Your task to perform on an android device: open app "Airtel Thanks" (install if not already installed) and go to login screen Image 0: 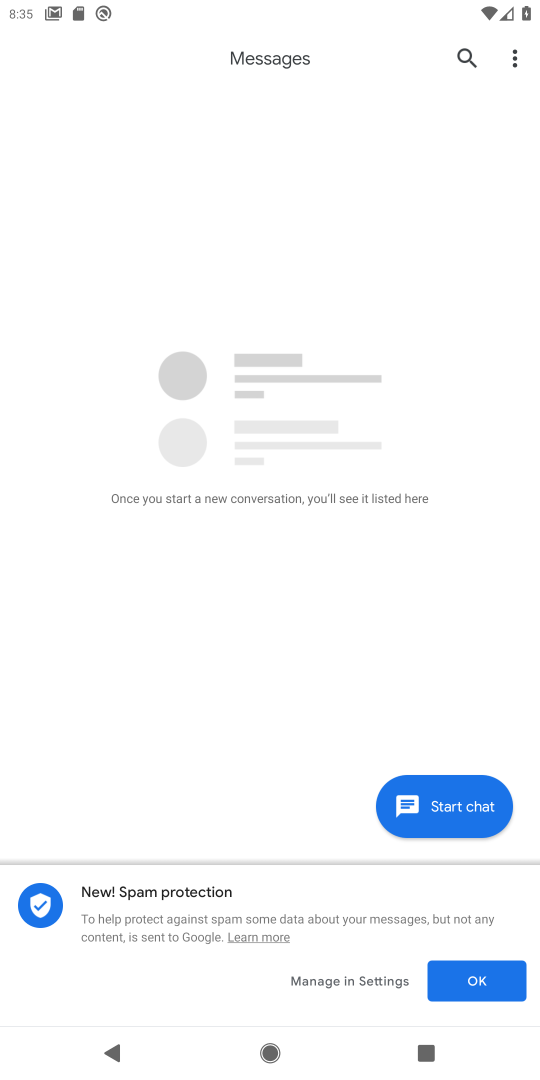
Step 0: press home button
Your task to perform on an android device: open app "Airtel Thanks" (install if not already installed) and go to login screen Image 1: 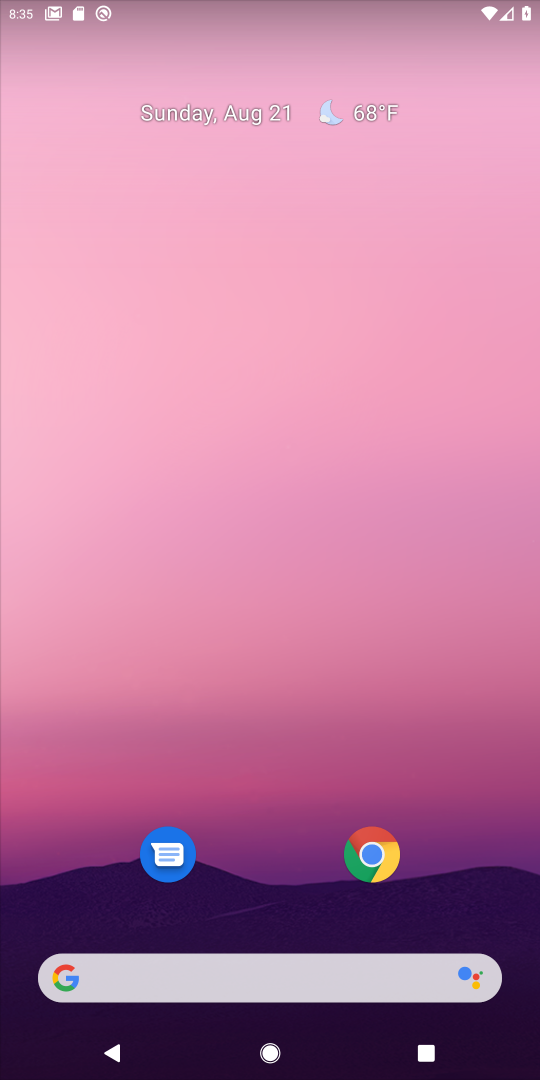
Step 1: drag from (307, 930) to (329, 150)
Your task to perform on an android device: open app "Airtel Thanks" (install if not already installed) and go to login screen Image 2: 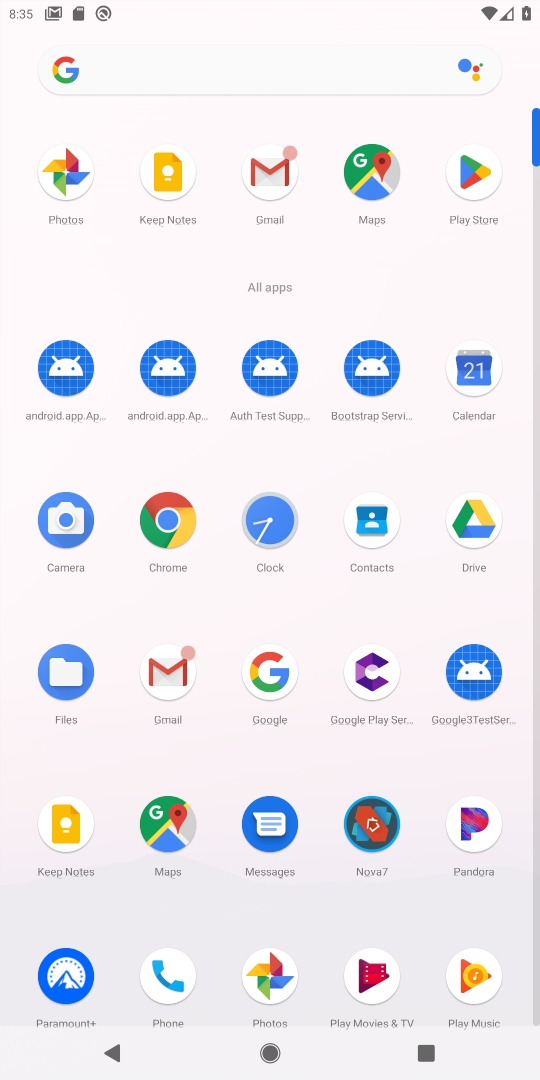
Step 2: click (454, 177)
Your task to perform on an android device: open app "Airtel Thanks" (install if not already installed) and go to login screen Image 3: 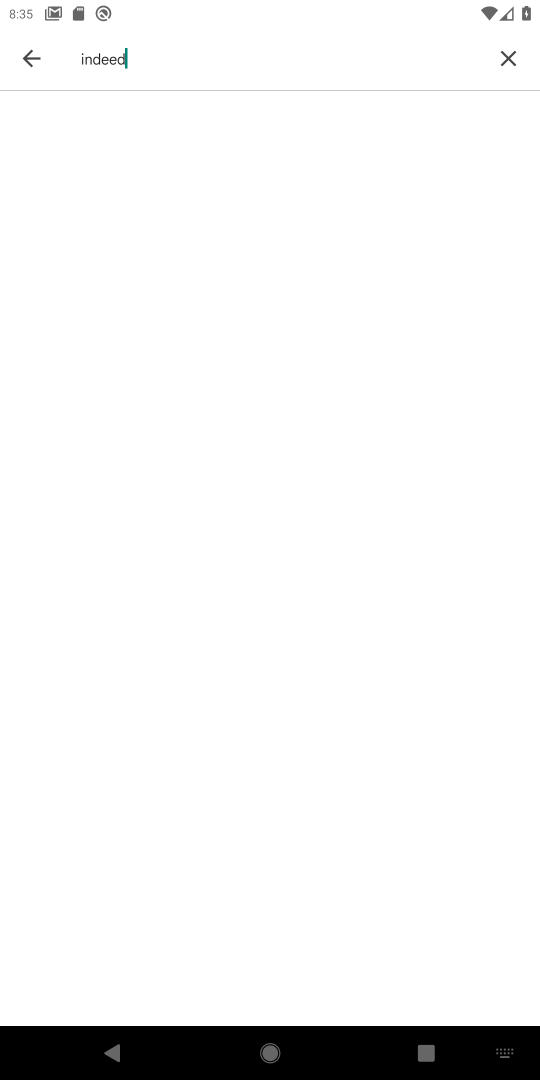
Step 3: click (494, 65)
Your task to perform on an android device: open app "Airtel Thanks" (install if not already installed) and go to login screen Image 4: 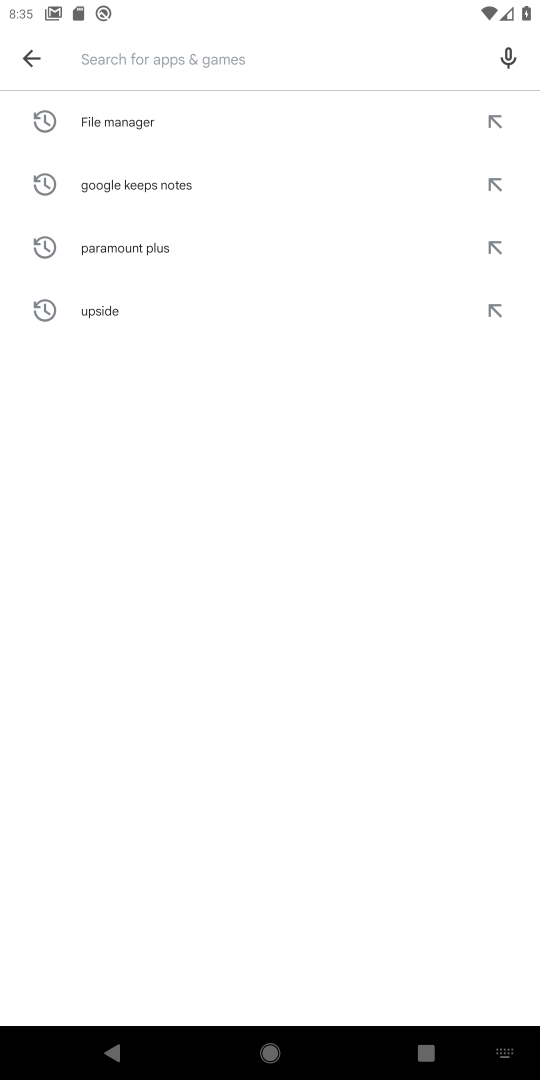
Step 4: type "airtell"
Your task to perform on an android device: open app "Airtel Thanks" (install if not already installed) and go to login screen Image 5: 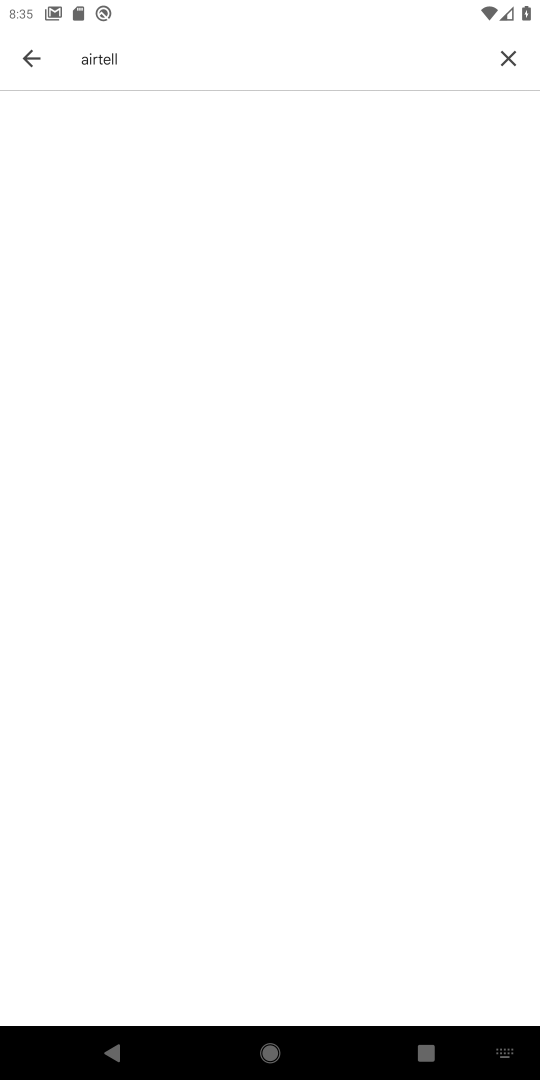
Step 5: task complete